Your task to perform on an android device: check google app version Image 0: 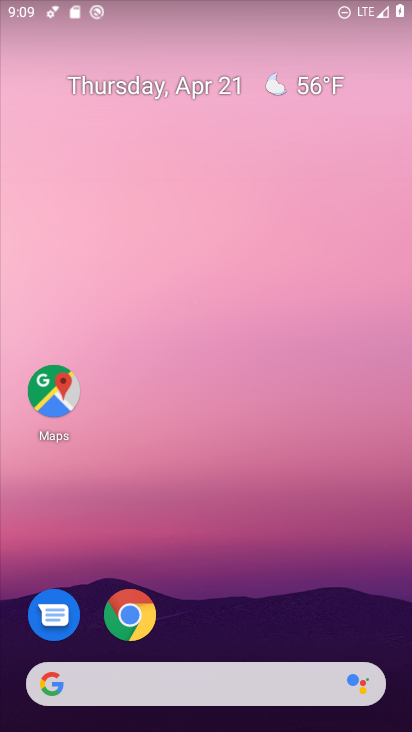
Step 0: drag from (358, 466) to (407, 95)
Your task to perform on an android device: check google app version Image 1: 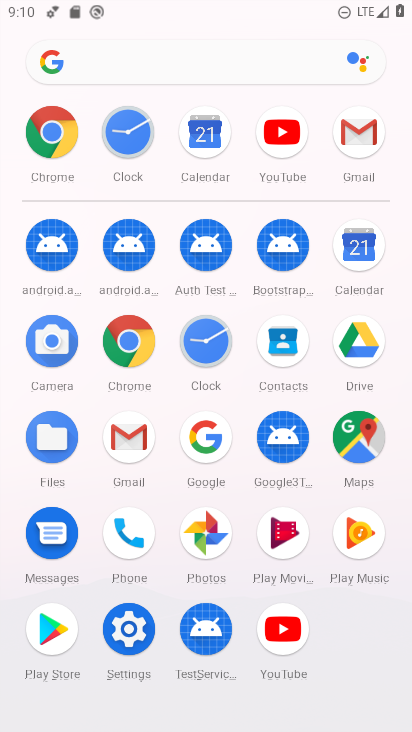
Step 1: click (125, 642)
Your task to perform on an android device: check google app version Image 2: 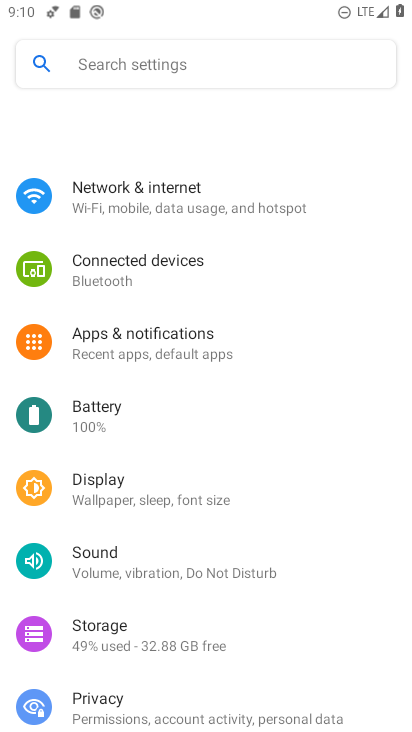
Step 2: drag from (193, 627) to (166, 232)
Your task to perform on an android device: check google app version Image 3: 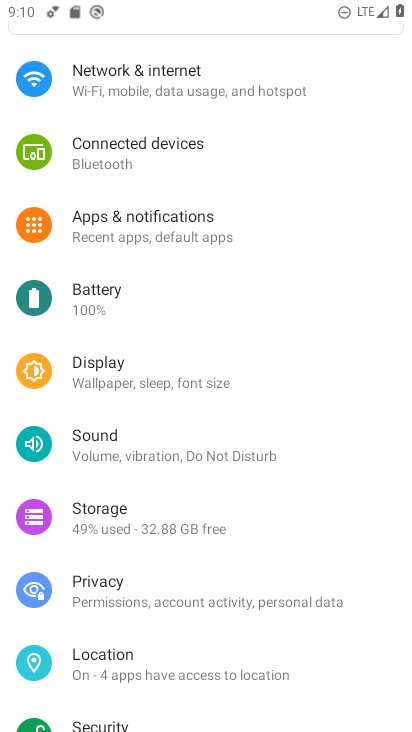
Step 3: drag from (176, 603) to (125, 180)
Your task to perform on an android device: check google app version Image 4: 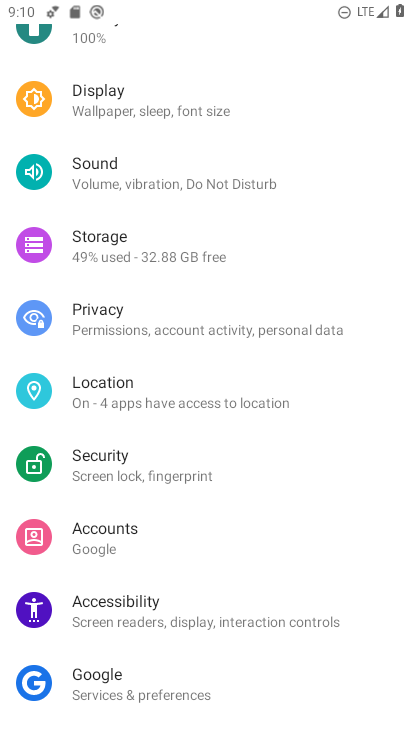
Step 4: drag from (199, 586) to (264, 152)
Your task to perform on an android device: check google app version Image 5: 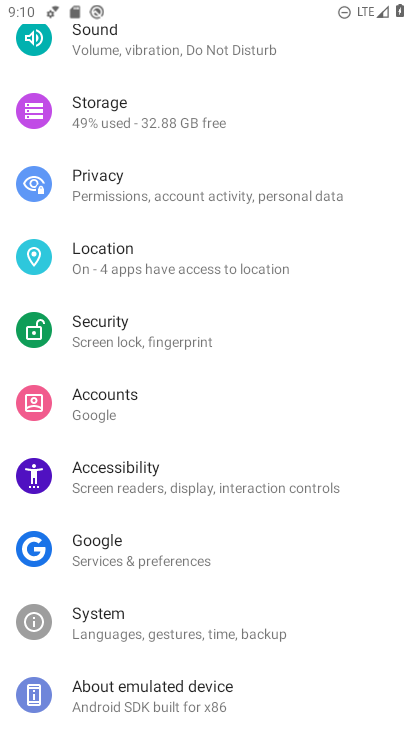
Step 5: drag from (300, 543) to (287, 167)
Your task to perform on an android device: check google app version Image 6: 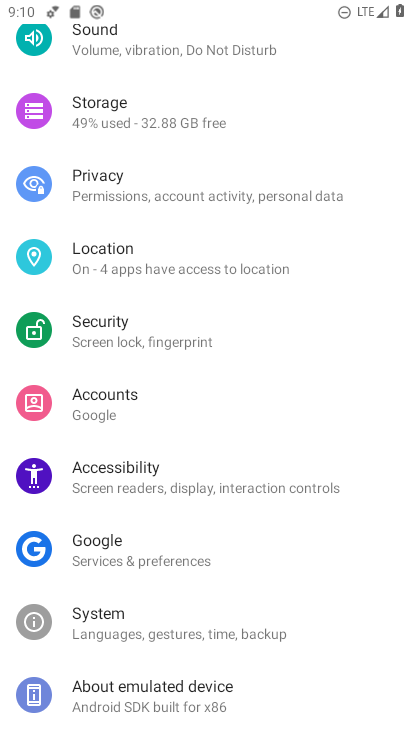
Step 6: click (143, 700)
Your task to perform on an android device: check google app version Image 7: 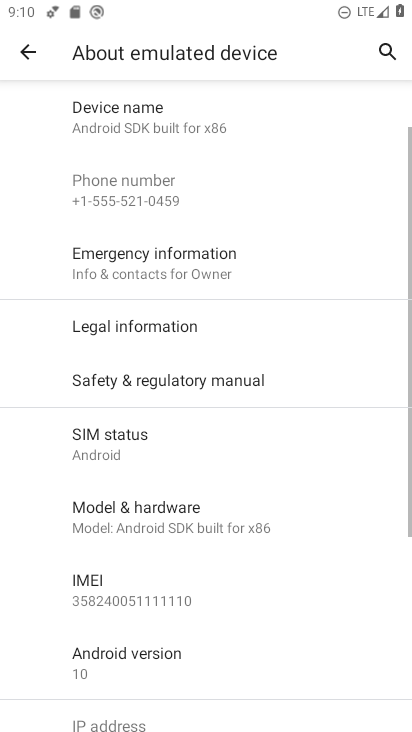
Step 7: drag from (170, 227) to (214, 525)
Your task to perform on an android device: check google app version Image 8: 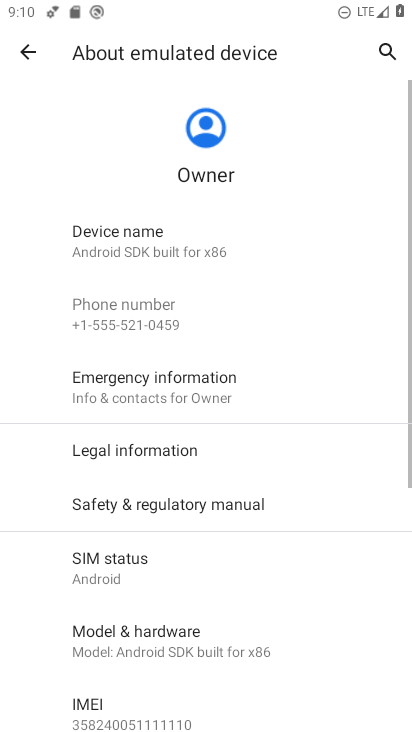
Step 8: drag from (228, 549) to (217, 190)
Your task to perform on an android device: check google app version Image 9: 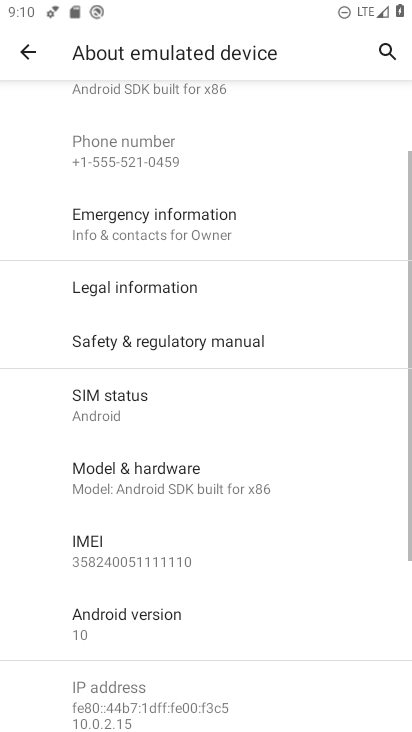
Step 9: drag from (201, 594) to (236, 188)
Your task to perform on an android device: check google app version Image 10: 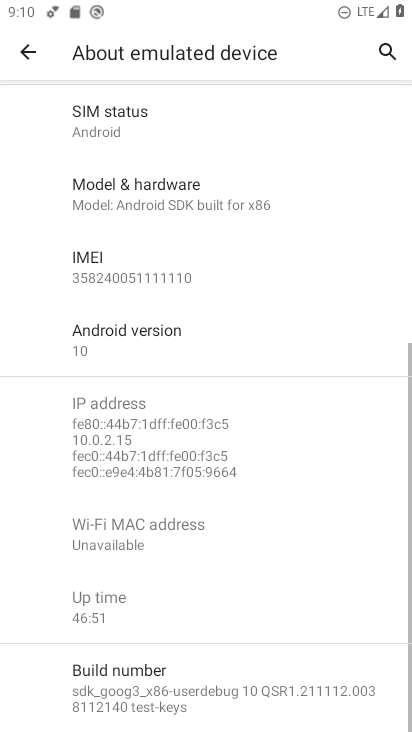
Step 10: drag from (218, 612) to (267, 184)
Your task to perform on an android device: check google app version Image 11: 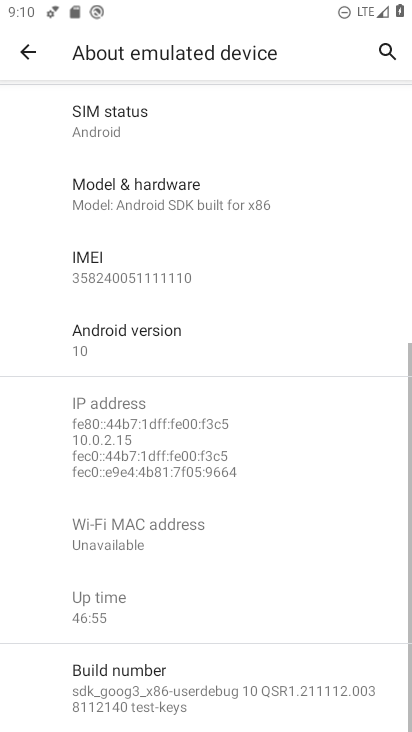
Step 11: drag from (252, 280) to (260, 561)
Your task to perform on an android device: check google app version Image 12: 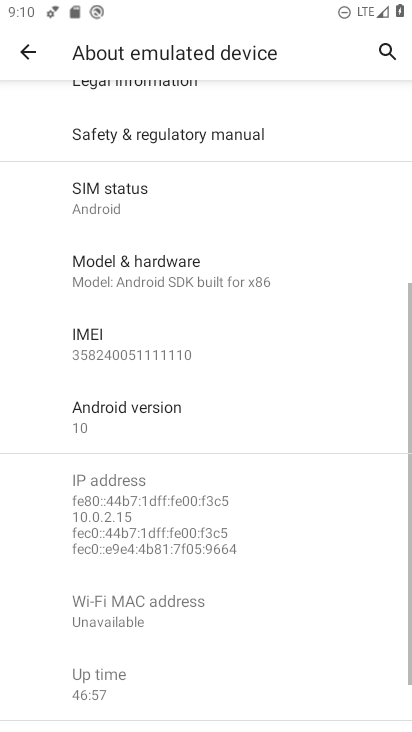
Step 12: click (121, 420)
Your task to perform on an android device: check google app version Image 13: 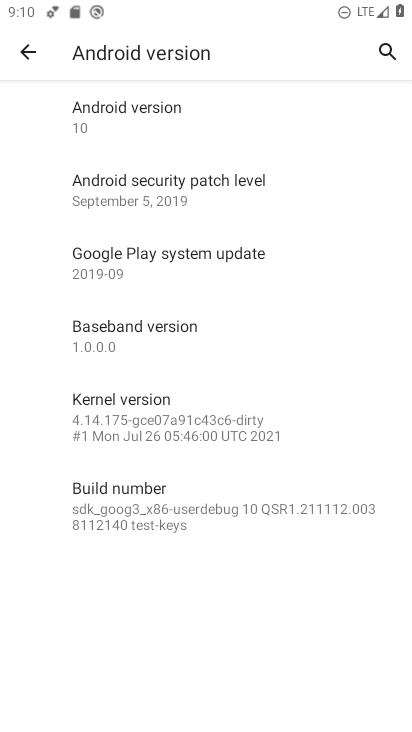
Step 13: click (81, 115)
Your task to perform on an android device: check google app version Image 14: 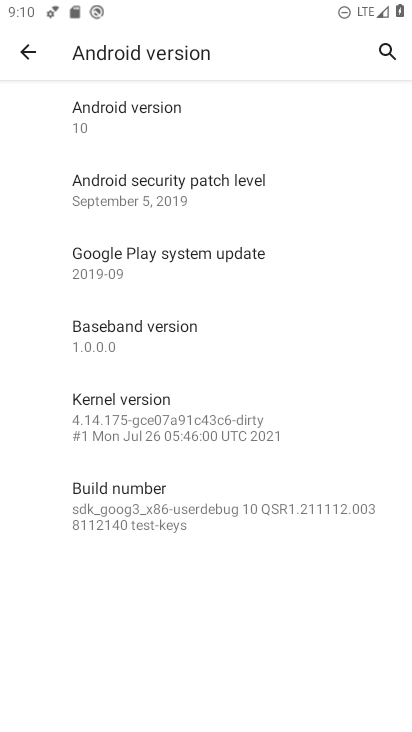
Step 14: task complete